Your task to perform on an android device: turn on the 12-hour format for clock Image 0: 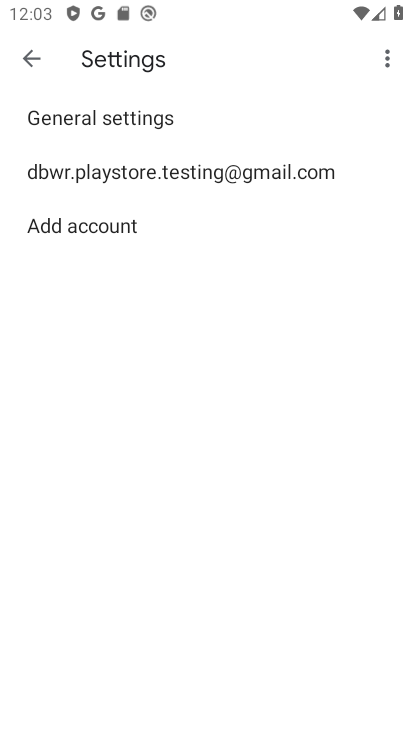
Step 0: press home button
Your task to perform on an android device: turn on the 12-hour format for clock Image 1: 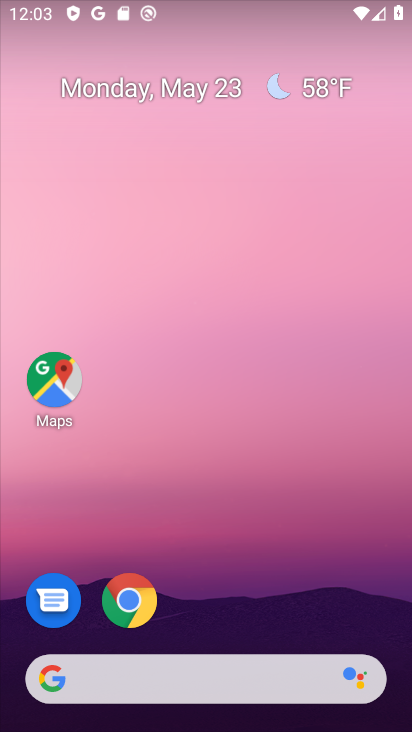
Step 1: drag from (258, 565) to (274, 77)
Your task to perform on an android device: turn on the 12-hour format for clock Image 2: 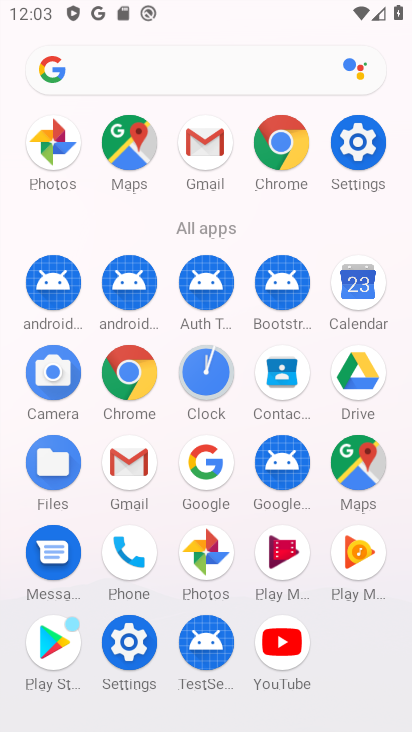
Step 2: click (200, 363)
Your task to perform on an android device: turn on the 12-hour format for clock Image 3: 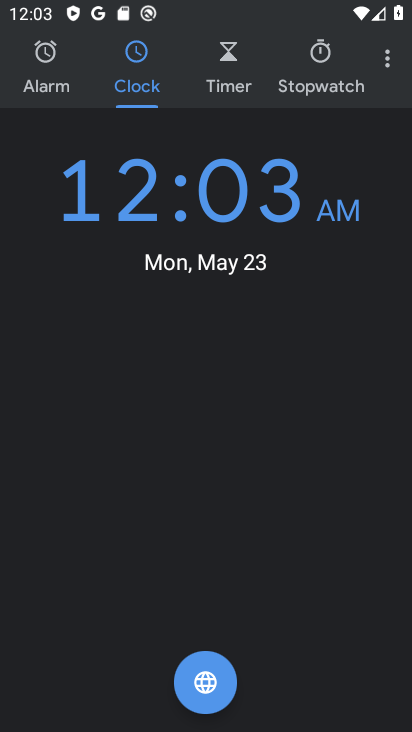
Step 3: click (398, 54)
Your task to perform on an android device: turn on the 12-hour format for clock Image 4: 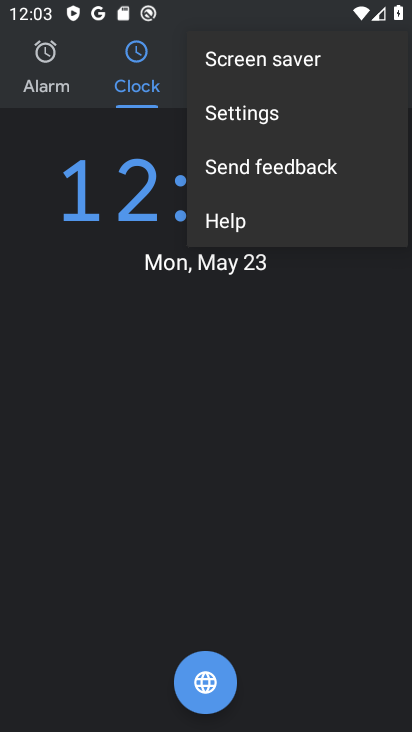
Step 4: click (287, 132)
Your task to perform on an android device: turn on the 12-hour format for clock Image 5: 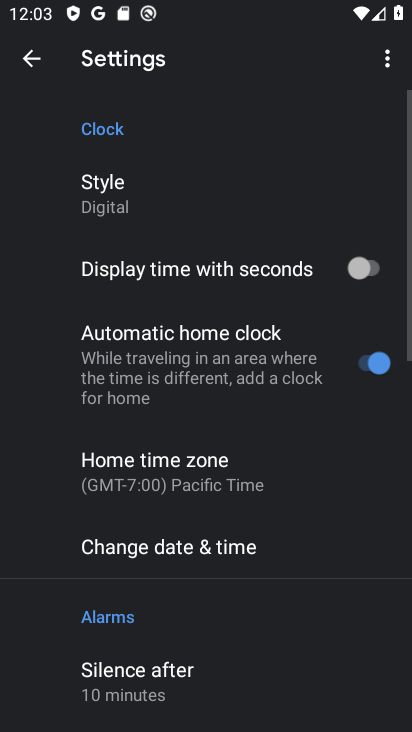
Step 5: drag from (199, 499) to (233, 72)
Your task to perform on an android device: turn on the 12-hour format for clock Image 6: 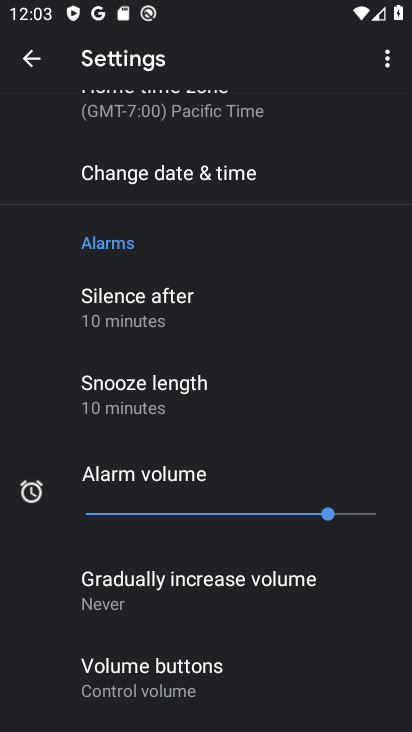
Step 6: click (213, 168)
Your task to perform on an android device: turn on the 12-hour format for clock Image 7: 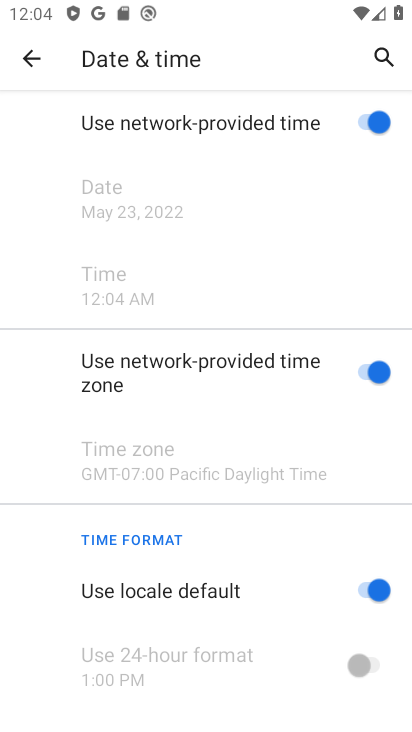
Step 7: task complete